Your task to perform on an android device: Open CNN.com Image 0: 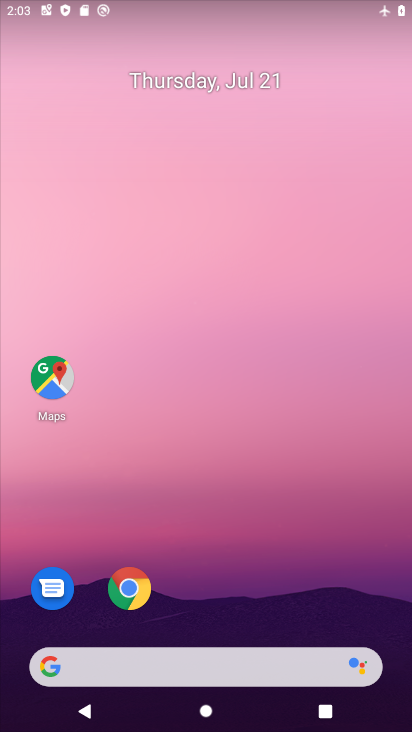
Step 0: click (151, 586)
Your task to perform on an android device: Open CNN.com Image 1: 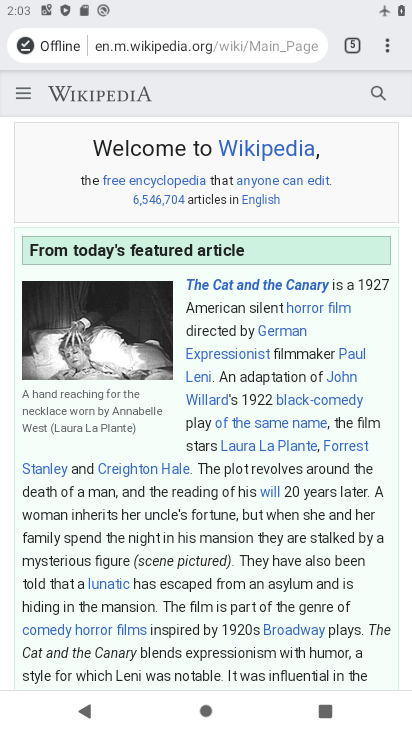
Step 1: click (355, 50)
Your task to perform on an android device: Open CNN.com Image 2: 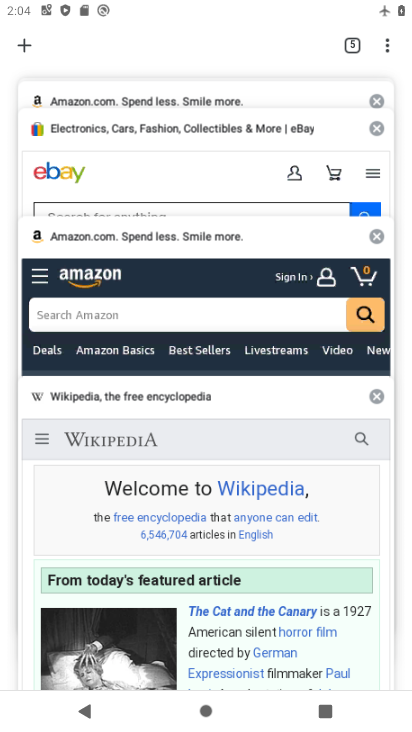
Step 2: task complete